Your task to perform on an android device: Check the weather Image 0: 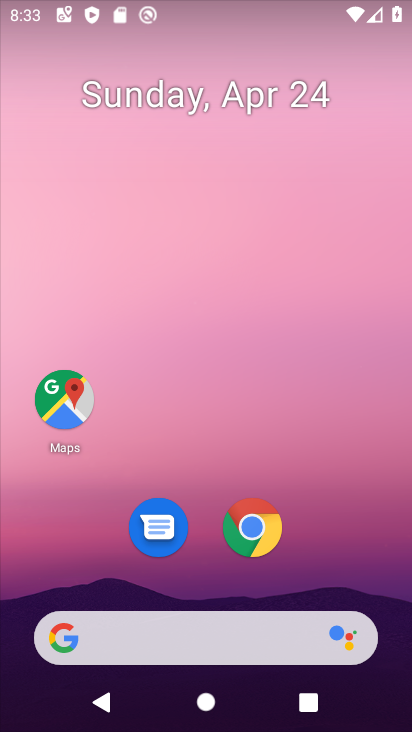
Step 0: click (229, 622)
Your task to perform on an android device: Check the weather Image 1: 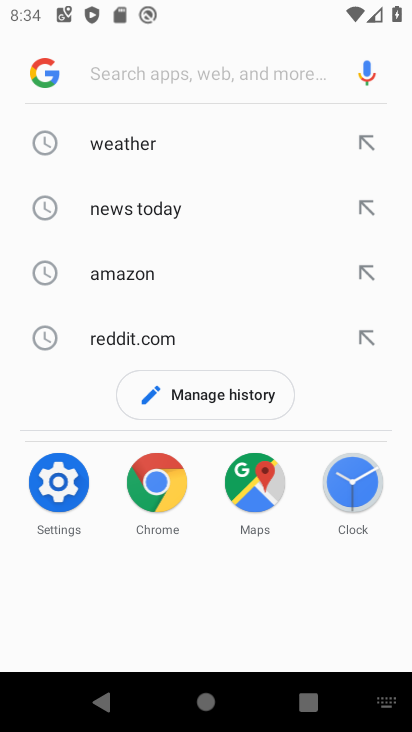
Step 1: click (142, 139)
Your task to perform on an android device: Check the weather Image 2: 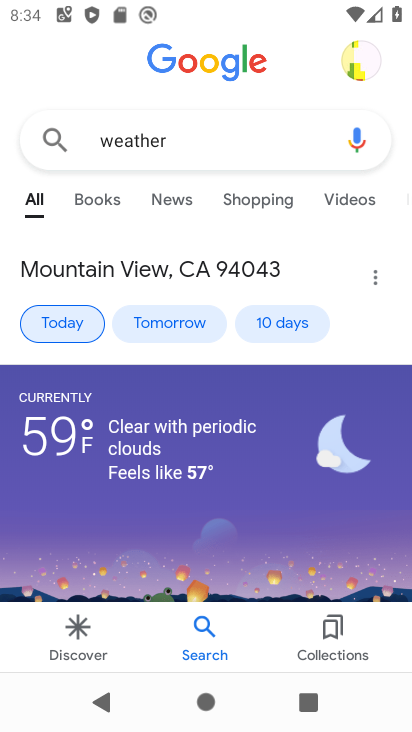
Step 2: task complete